Your task to perform on an android device: check data usage Image 0: 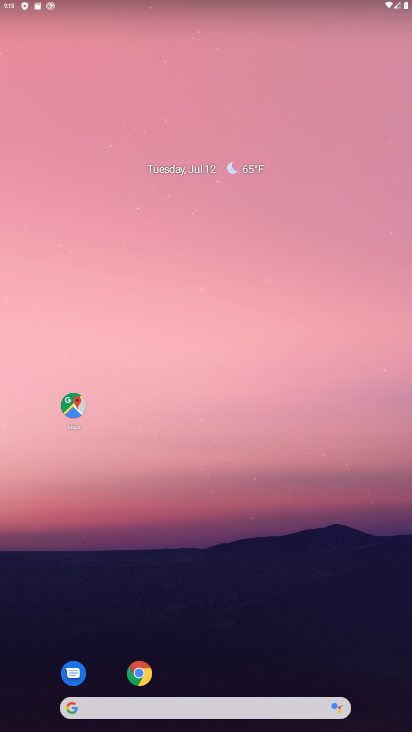
Step 0: drag from (356, 627) to (350, 126)
Your task to perform on an android device: check data usage Image 1: 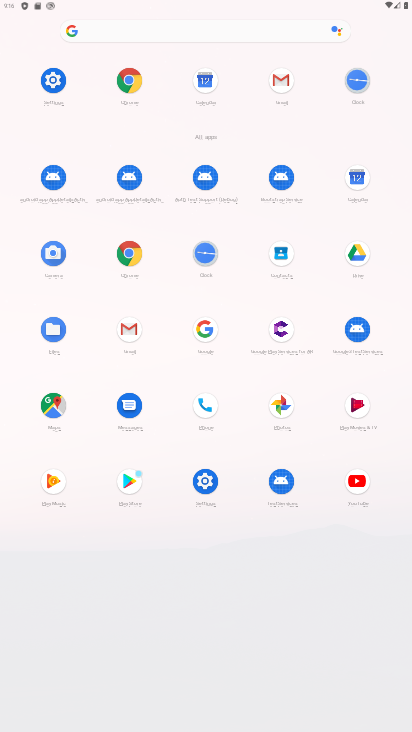
Step 1: click (56, 81)
Your task to perform on an android device: check data usage Image 2: 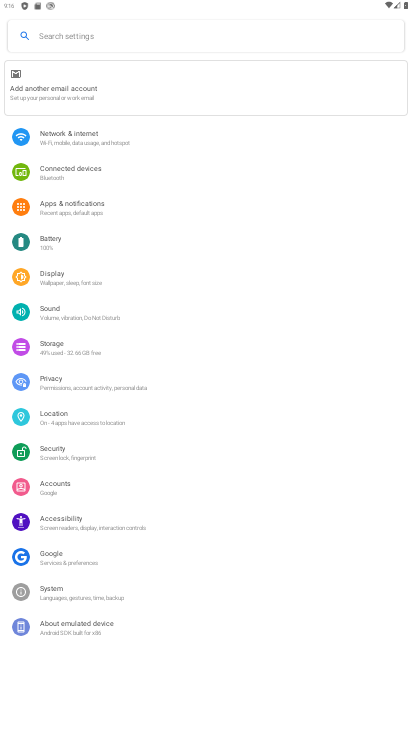
Step 2: drag from (302, 377) to (314, 249)
Your task to perform on an android device: check data usage Image 3: 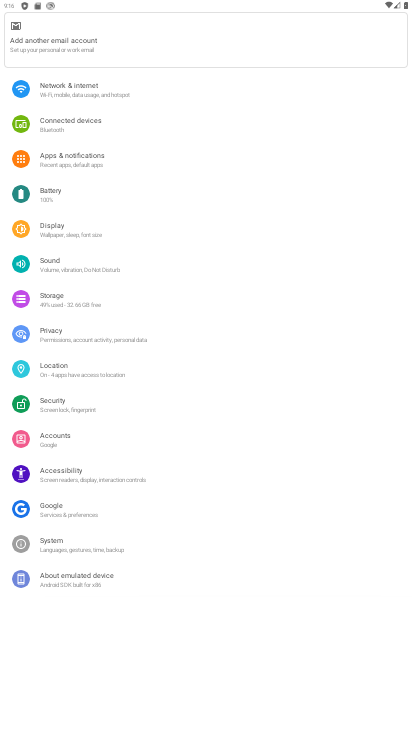
Step 3: drag from (289, 165) to (274, 317)
Your task to perform on an android device: check data usage Image 4: 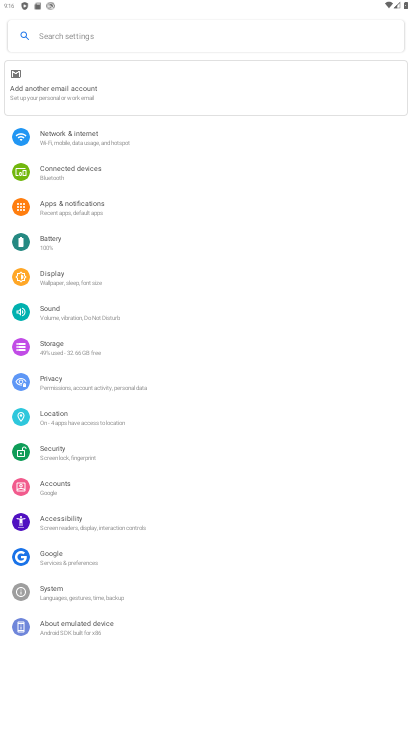
Step 4: click (79, 133)
Your task to perform on an android device: check data usage Image 5: 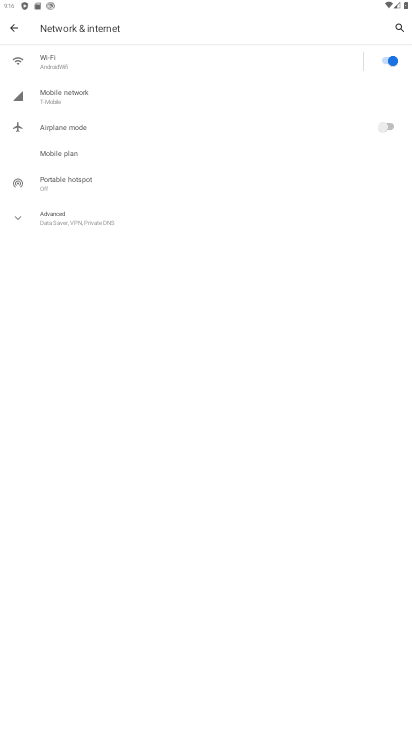
Step 5: click (82, 93)
Your task to perform on an android device: check data usage Image 6: 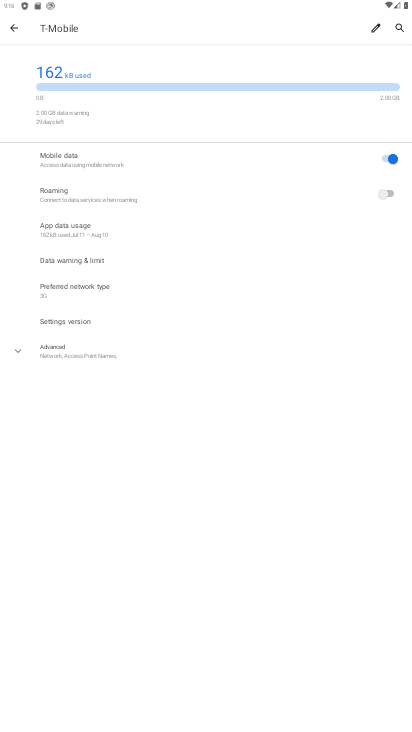
Step 6: click (81, 233)
Your task to perform on an android device: check data usage Image 7: 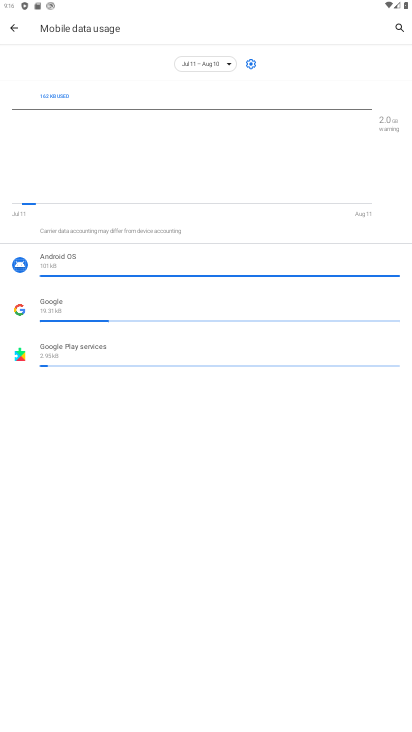
Step 7: task complete